Your task to perform on an android device: delete the emails in spam in the gmail app Image 0: 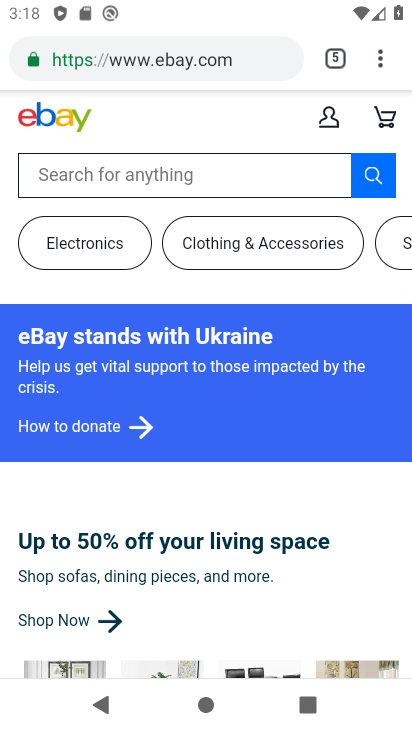
Step 0: press home button
Your task to perform on an android device: delete the emails in spam in the gmail app Image 1: 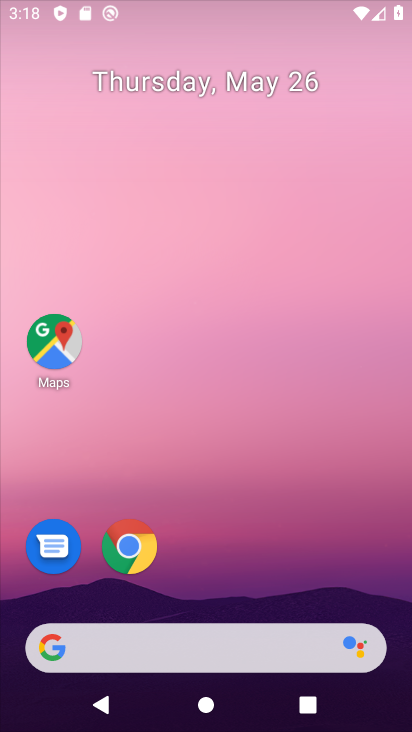
Step 1: drag from (248, 280) to (188, 22)
Your task to perform on an android device: delete the emails in spam in the gmail app Image 2: 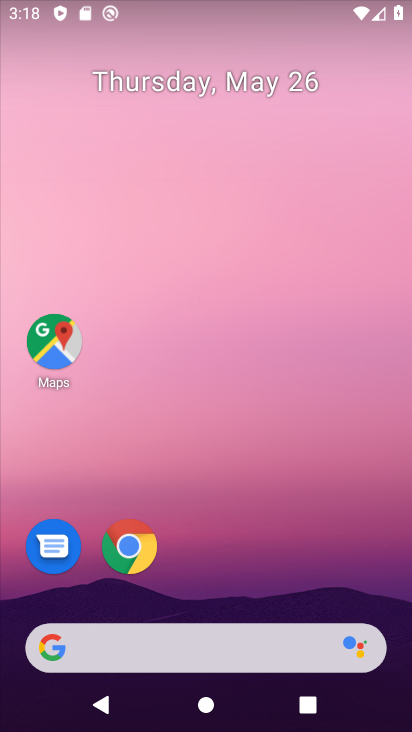
Step 2: drag from (238, 471) to (173, 11)
Your task to perform on an android device: delete the emails in spam in the gmail app Image 3: 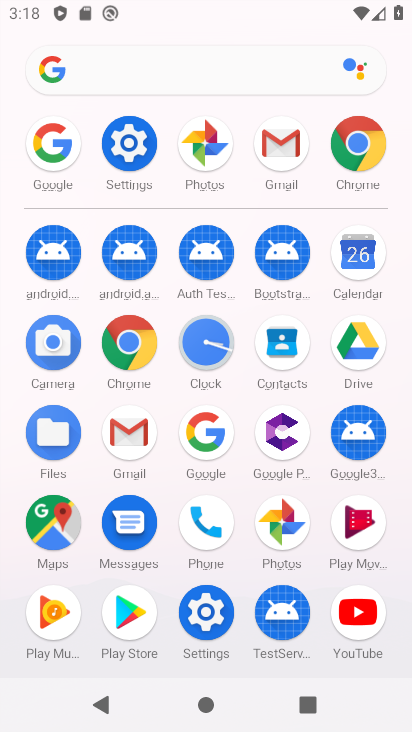
Step 3: click (276, 142)
Your task to perform on an android device: delete the emails in spam in the gmail app Image 4: 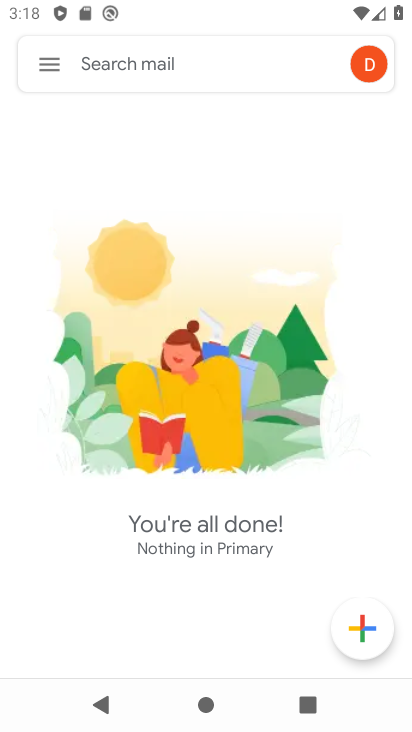
Step 4: click (50, 61)
Your task to perform on an android device: delete the emails in spam in the gmail app Image 5: 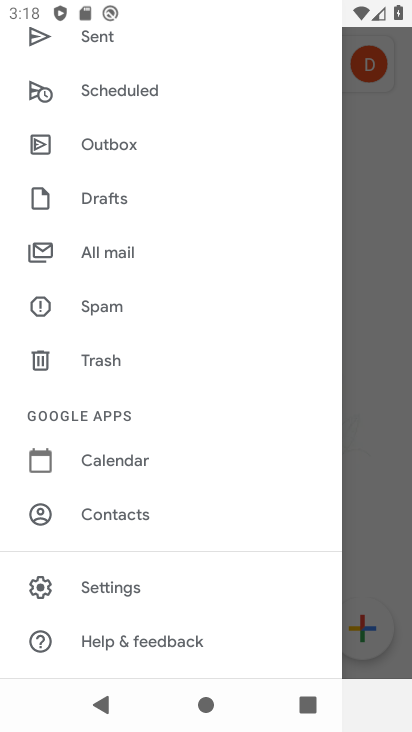
Step 5: click (153, 243)
Your task to perform on an android device: delete the emails in spam in the gmail app Image 6: 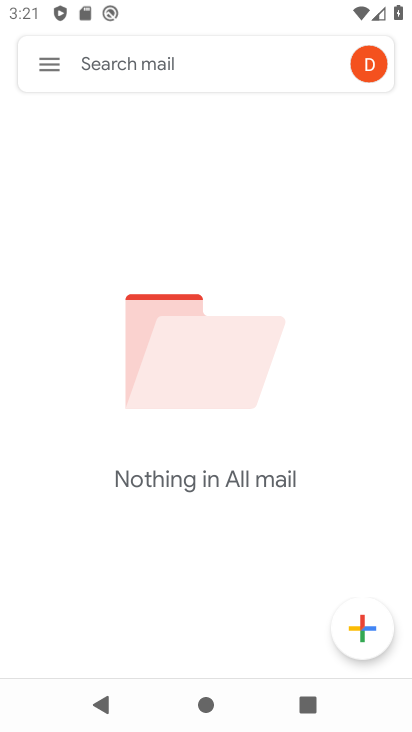
Step 6: task complete